Your task to perform on an android device: turn vacation reply on in the gmail app Image 0: 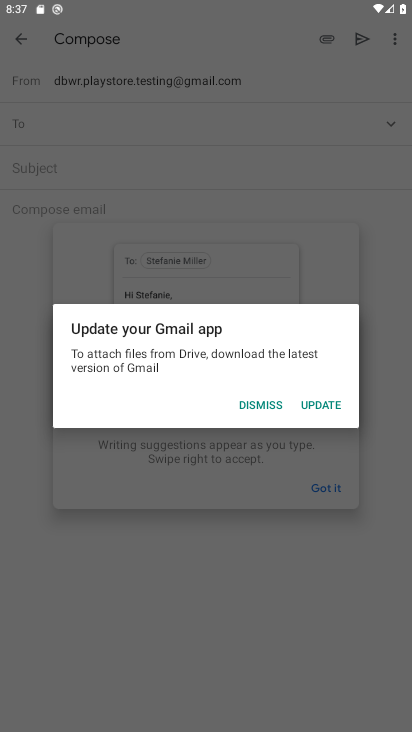
Step 0: press home button
Your task to perform on an android device: turn vacation reply on in the gmail app Image 1: 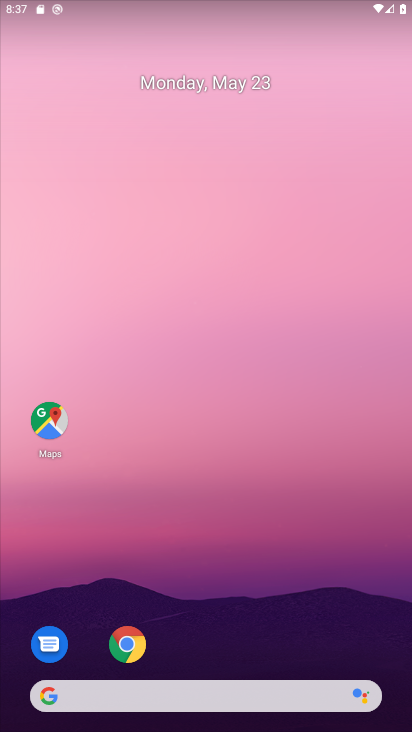
Step 1: drag from (332, 546) to (318, 109)
Your task to perform on an android device: turn vacation reply on in the gmail app Image 2: 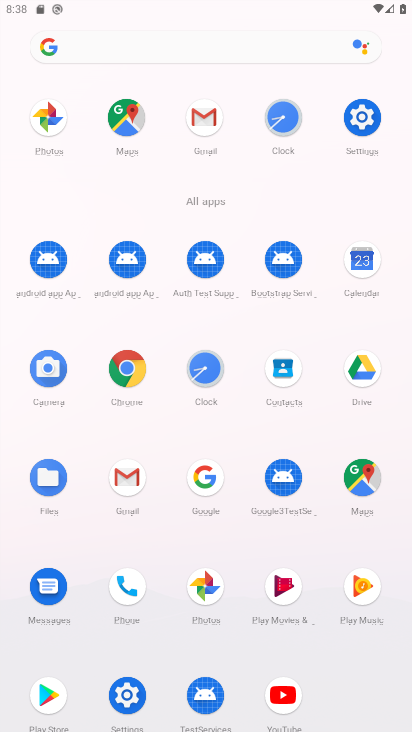
Step 2: click (132, 480)
Your task to perform on an android device: turn vacation reply on in the gmail app Image 3: 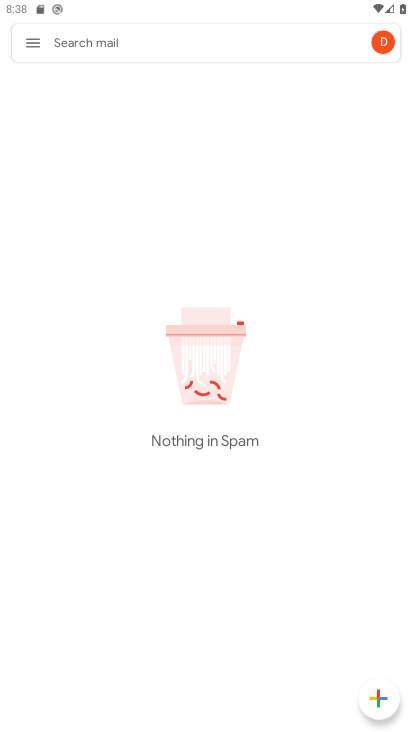
Step 3: click (23, 45)
Your task to perform on an android device: turn vacation reply on in the gmail app Image 4: 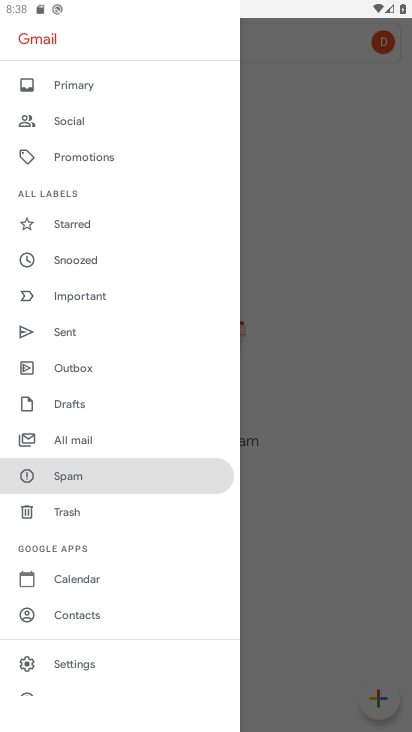
Step 4: click (101, 663)
Your task to perform on an android device: turn vacation reply on in the gmail app Image 5: 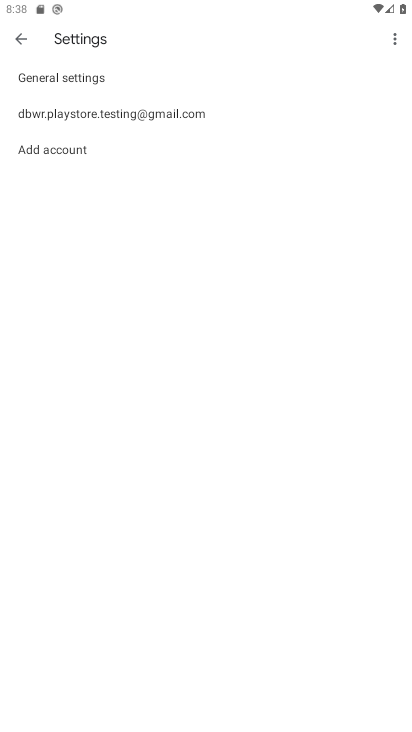
Step 5: click (203, 114)
Your task to perform on an android device: turn vacation reply on in the gmail app Image 6: 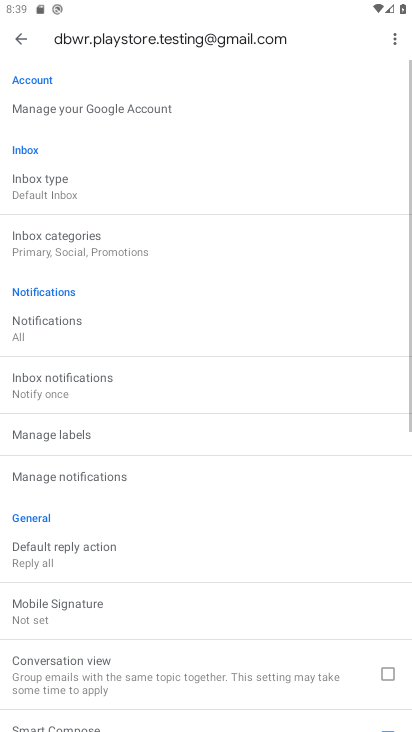
Step 6: drag from (194, 575) to (179, 198)
Your task to perform on an android device: turn vacation reply on in the gmail app Image 7: 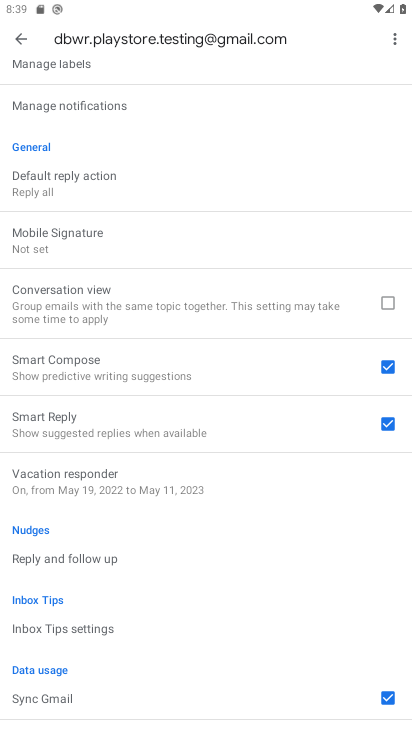
Step 7: click (235, 469)
Your task to perform on an android device: turn vacation reply on in the gmail app Image 8: 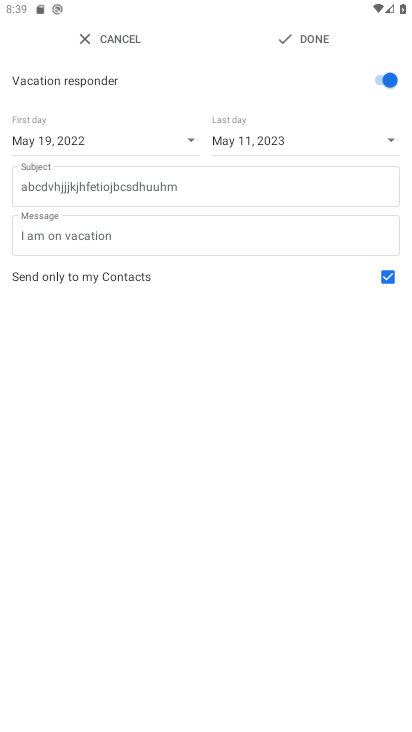
Step 8: task complete